Your task to perform on an android device: open a bookmark in the chrome app Image 0: 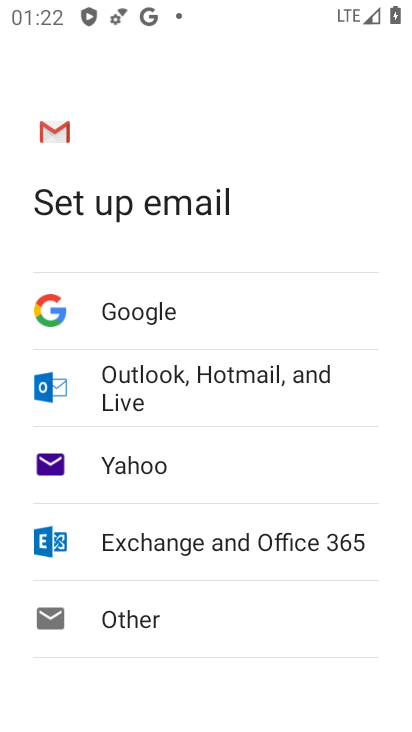
Step 0: press home button
Your task to perform on an android device: open a bookmark in the chrome app Image 1: 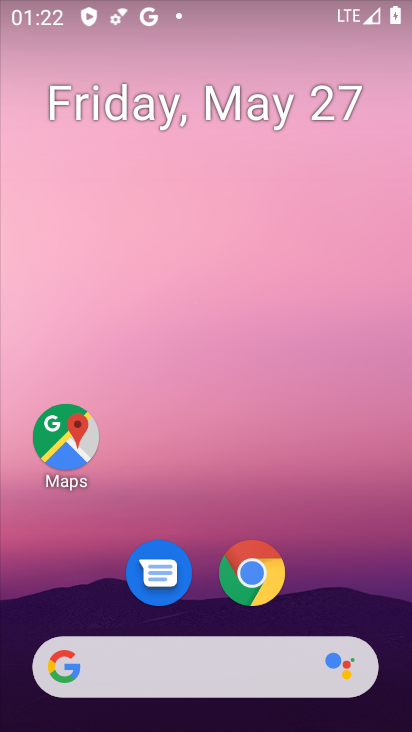
Step 1: drag from (194, 604) to (142, 49)
Your task to perform on an android device: open a bookmark in the chrome app Image 2: 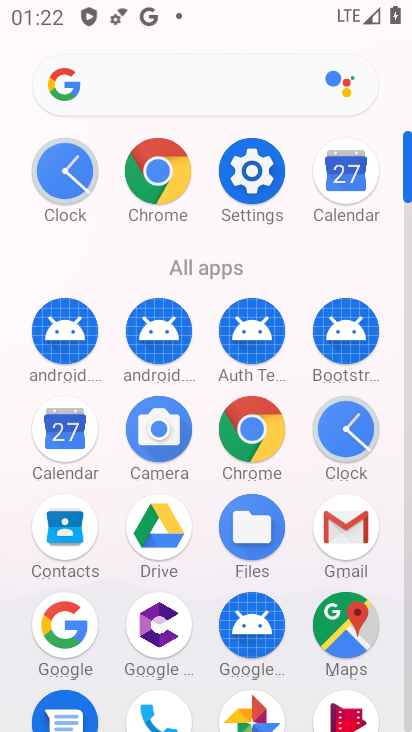
Step 2: click (248, 420)
Your task to perform on an android device: open a bookmark in the chrome app Image 3: 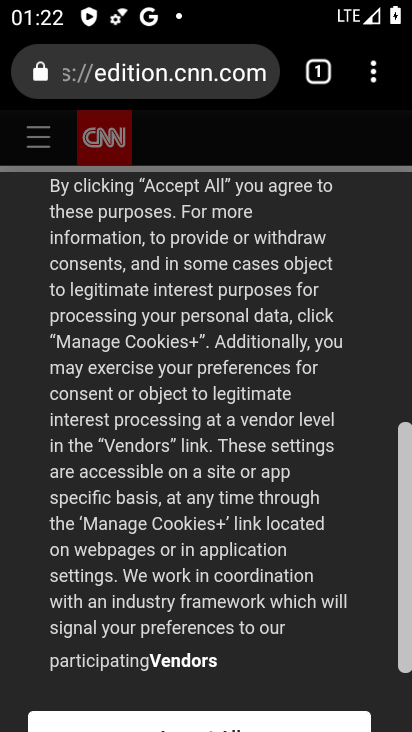
Step 3: click (378, 77)
Your task to perform on an android device: open a bookmark in the chrome app Image 4: 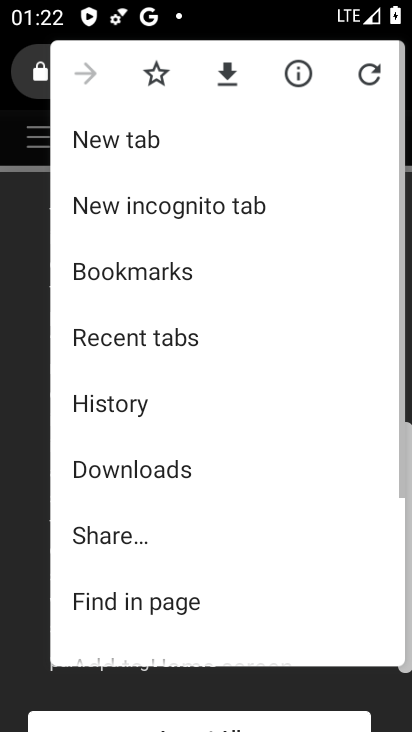
Step 4: click (149, 280)
Your task to perform on an android device: open a bookmark in the chrome app Image 5: 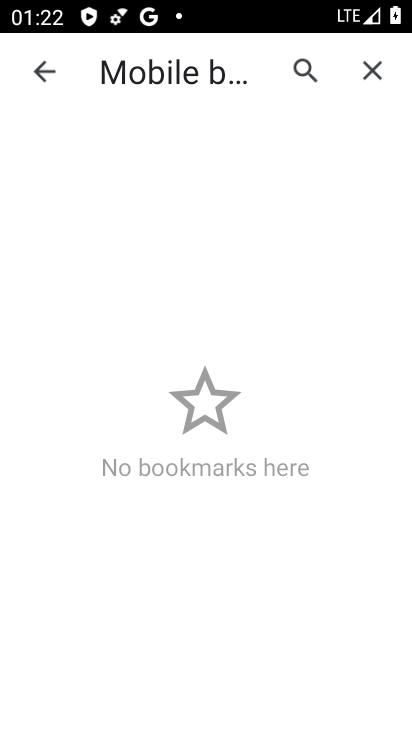
Step 5: task complete